Your task to perform on an android device: turn off notifications settings in the gmail app Image 0: 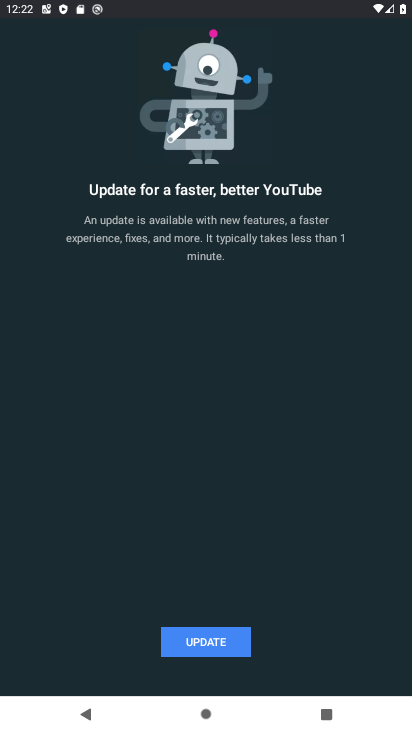
Step 0: press home button
Your task to perform on an android device: turn off notifications settings in the gmail app Image 1: 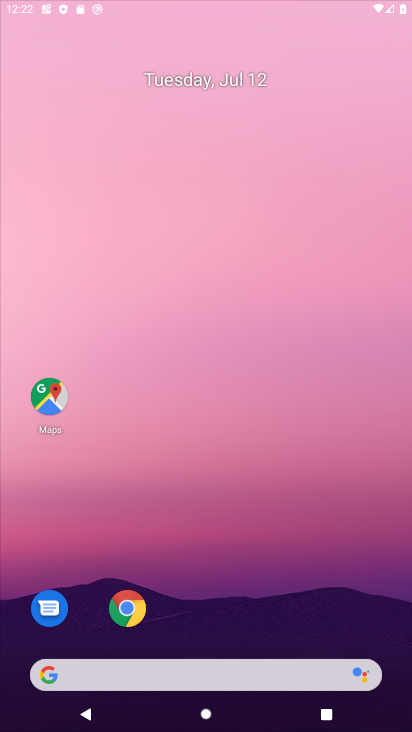
Step 1: press home button
Your task to perform on an android device: turn off notifications settings in the gmail app Image 2: 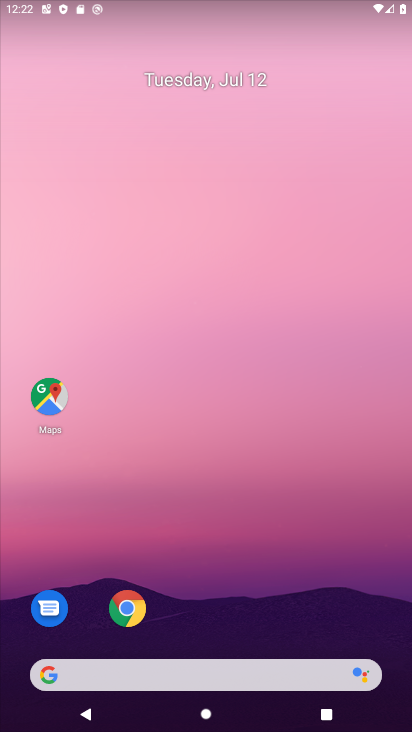
Step 2: drag from (173, 640) to (251, 29)
Your task to perform on an android device: turn off notifications settings in the gmail app Image 3: 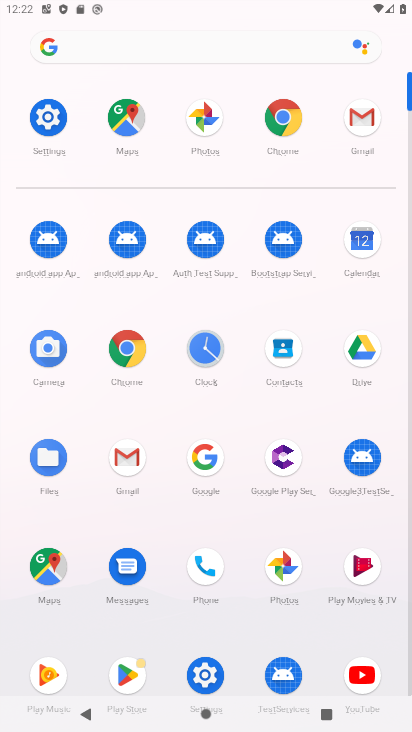
Step 3: click (374, 120)
Your task to perform on an android device: turn off notifications settings in the gmail app Image 4: 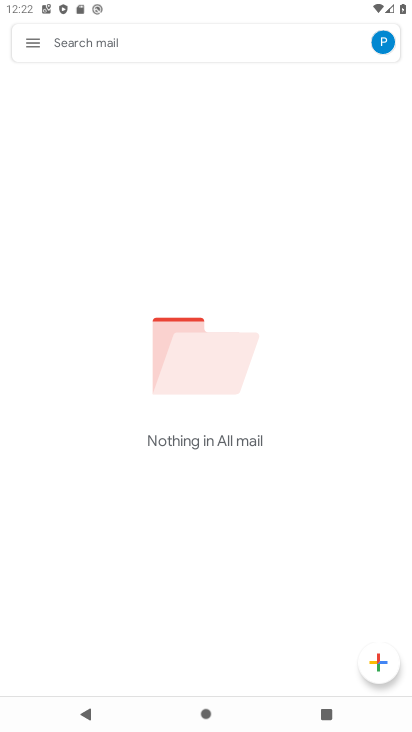
Step 4: click (38, 52)
Your task to perform on an android device: turn off notifications settings in the gmail app Image 5: 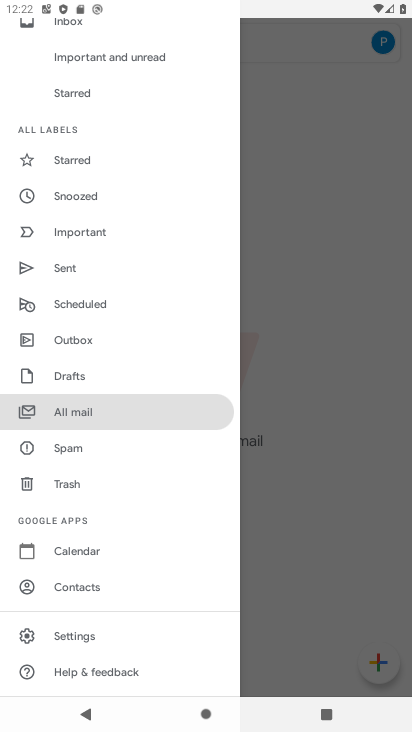
Step 5: click (104, 624)
Your task to perform on an android device: turn off notifications settings in the gmail app Image 6: 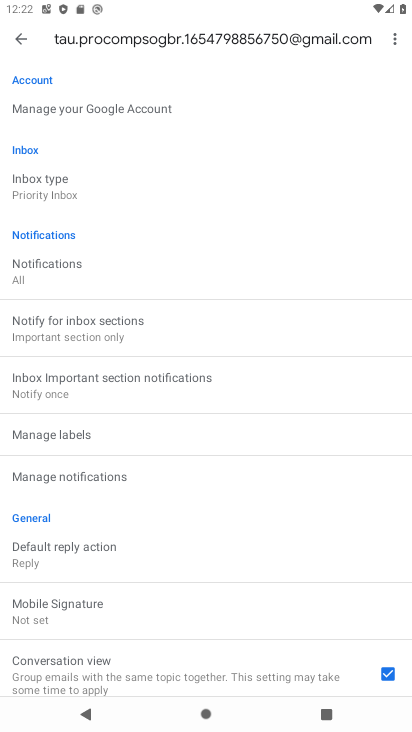
Step 6: click (119, 272)
Your task to perform on an android device: turn off notifications settings in the gmail app Image 7: 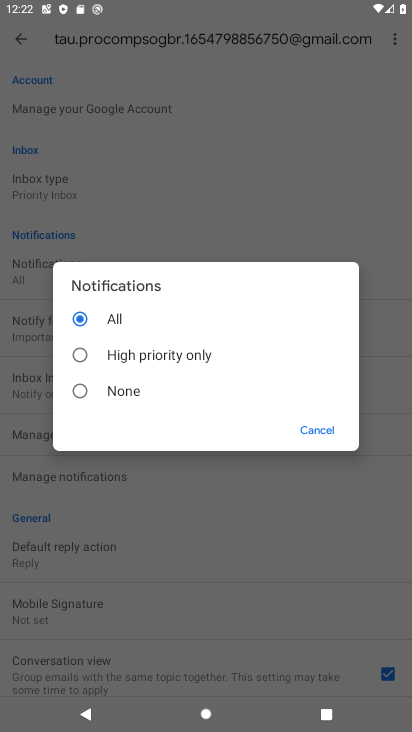
Step 7: click (147, 394)
Your task to perform on an android device: turn off notifications settings in the gmail app Image 8: 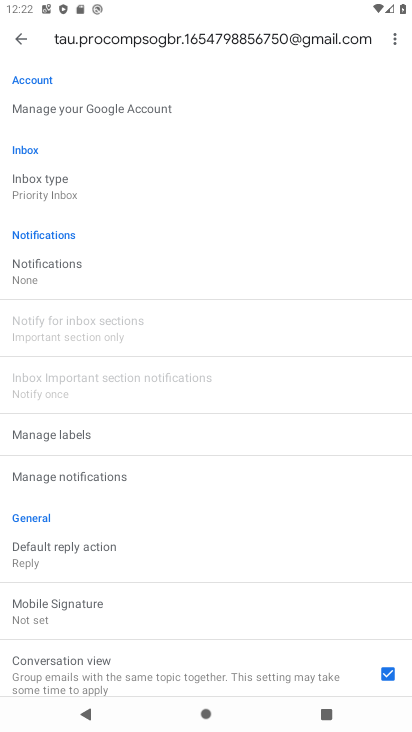
Step 8: task complete